Your task to perform on an android device: change alarm snooze length Image 0: 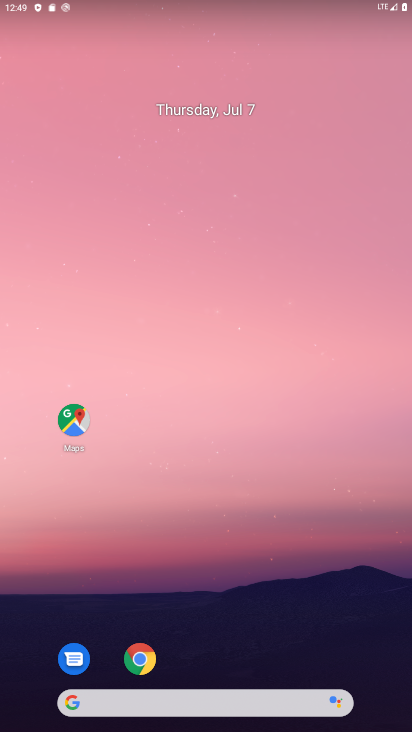
Step 0: drag from (273, 560) to (243, 99)
Your task to perform on an android device: change alarm snooze length Image 1: 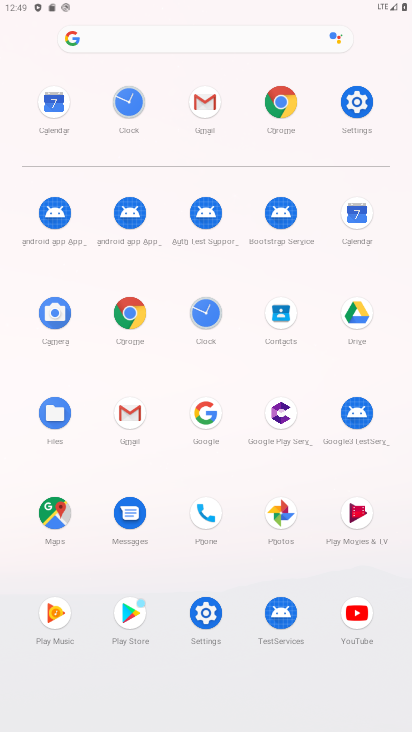
Step 1: click (202, 319)
Your task to perform on an android device: change alarm snooze length Image 2: 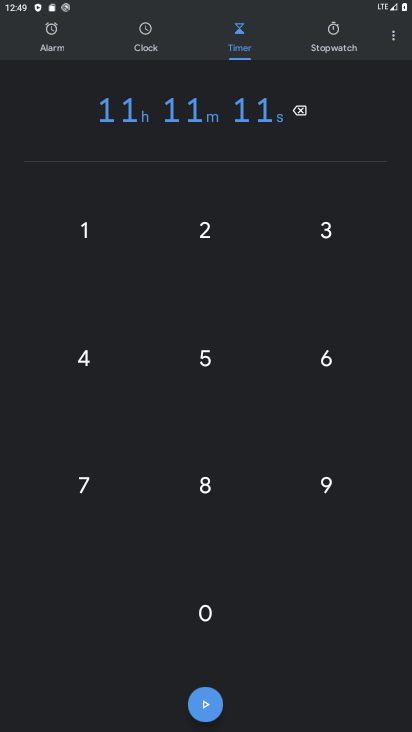
Step 2: click (394, 33)
Your task to perform on an android device: change alarm snooze length Image 3: 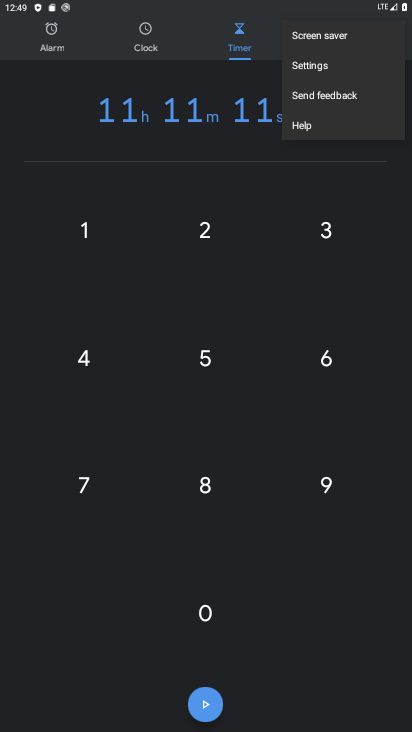
Step 3: click (311, 65)
Your task to perform on an android device: change alarm snooze length Image 4: 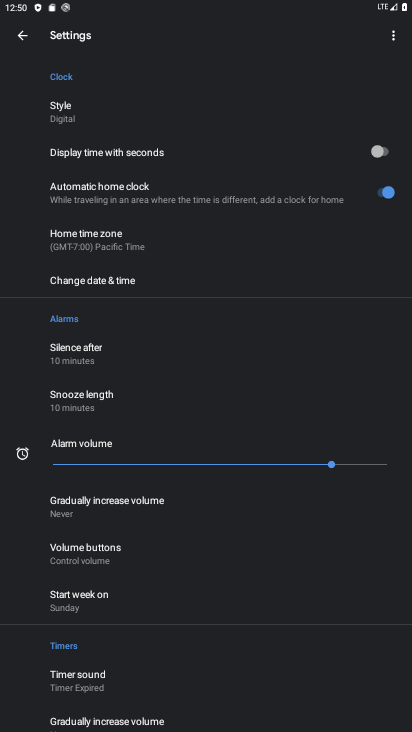
Step 4: click (106, 390)
Your task to perform on an android device: change alarm snooze length Image 5: 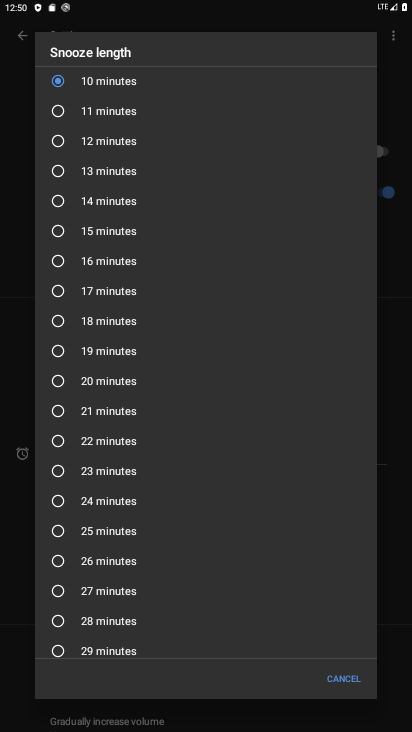
Step 5: click (46, 139)
Your task to perform on an android device: change alarm snooze length Image 6: 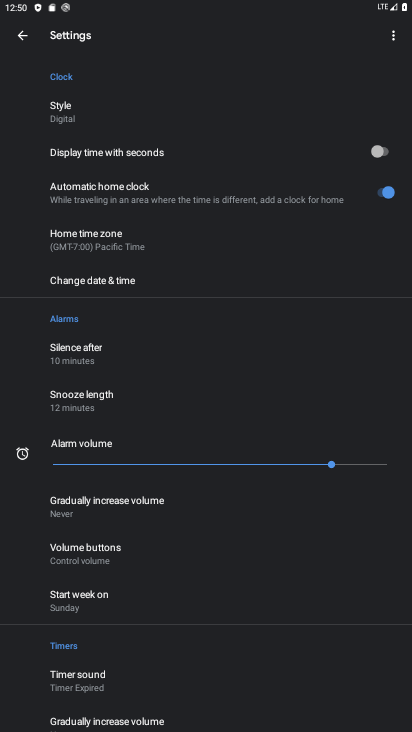
Step 6: task complete